Your task to perform on an android device: Clear all items from cart on newegg. Add "macbook pro 13 inch" to the cart on newegg Image 0: 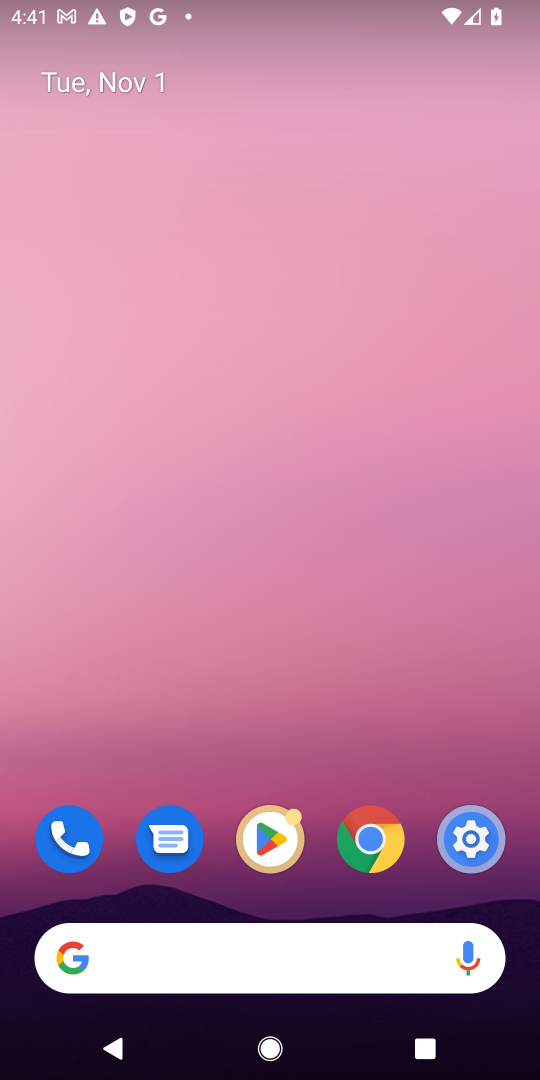
Step 0: drag from (302, 661) to (261, 4)
Your task to perform on an android device: Clear all items from cart on newegg. Add "macbook pro 13 inch" to the cart on newegg Image 1: 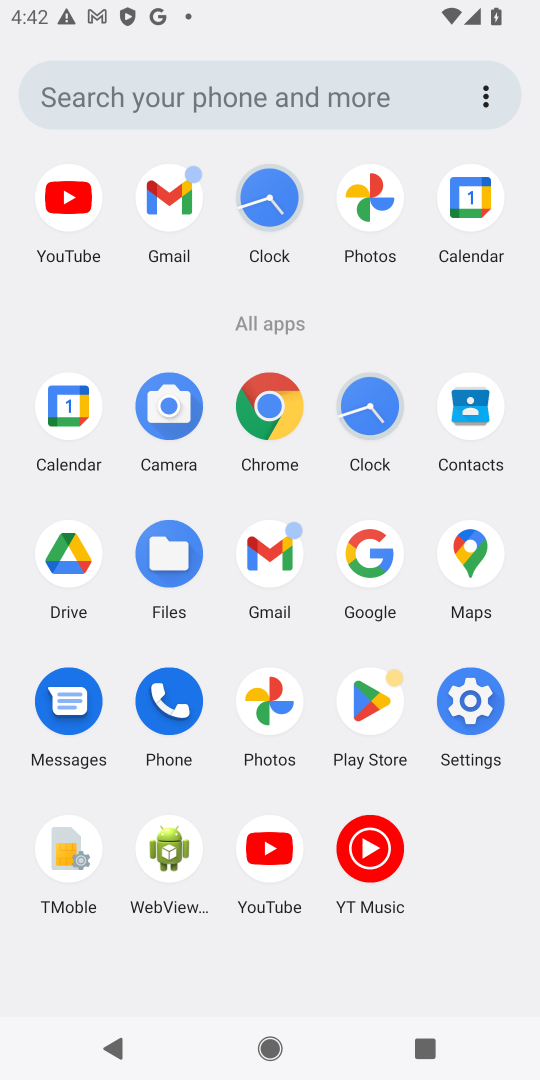
Step 1: click (275, 397)
Your task to perform on an android device: Clear all items from cart on newegg. Add "macbook pro 13 inch" to the cart on newegg Image 2: 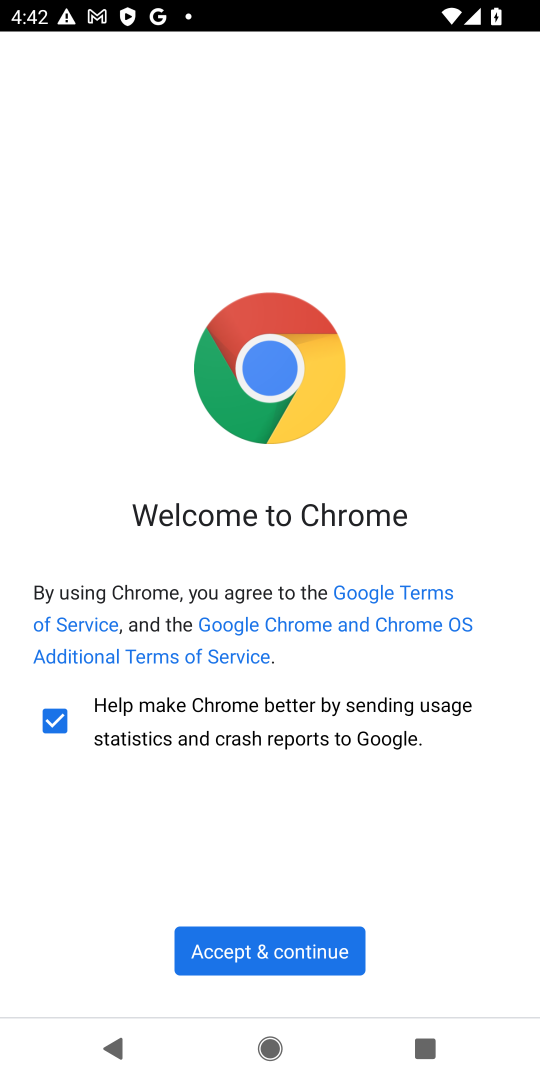
Step 2: click (310, 946)
Your task to perform on an android device: Clear all items from cart on newegg. Add "macbook pro 13 inch" to the cart on newegg Image 3: 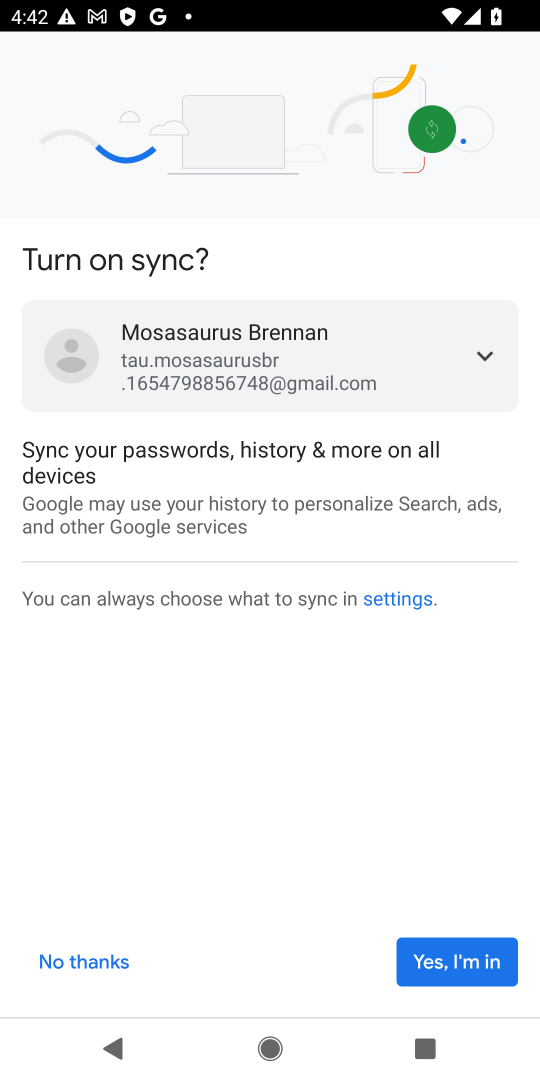
Step 3: click (472, 979)
Your task to perform on an android device: Clear all items from cart on newegg. Add "macbook pro 13 inch" to the cart on newegg Image 4: 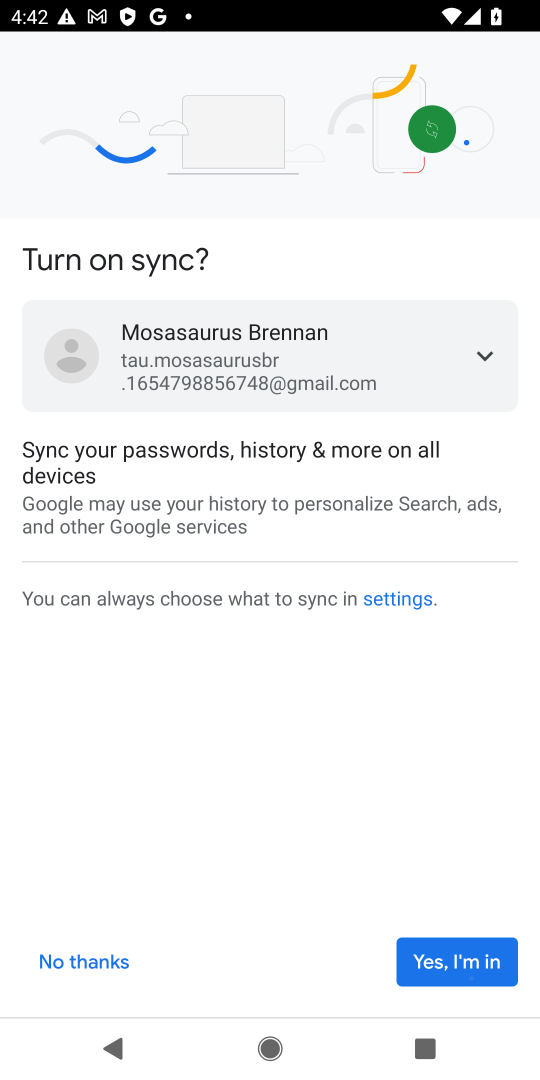
Step 4: click (477, 969)
Your task to perform on an android device: Clear all items from cart on newegg. Add "macbook pro 13 inch" to the cart on newegg Image 5: 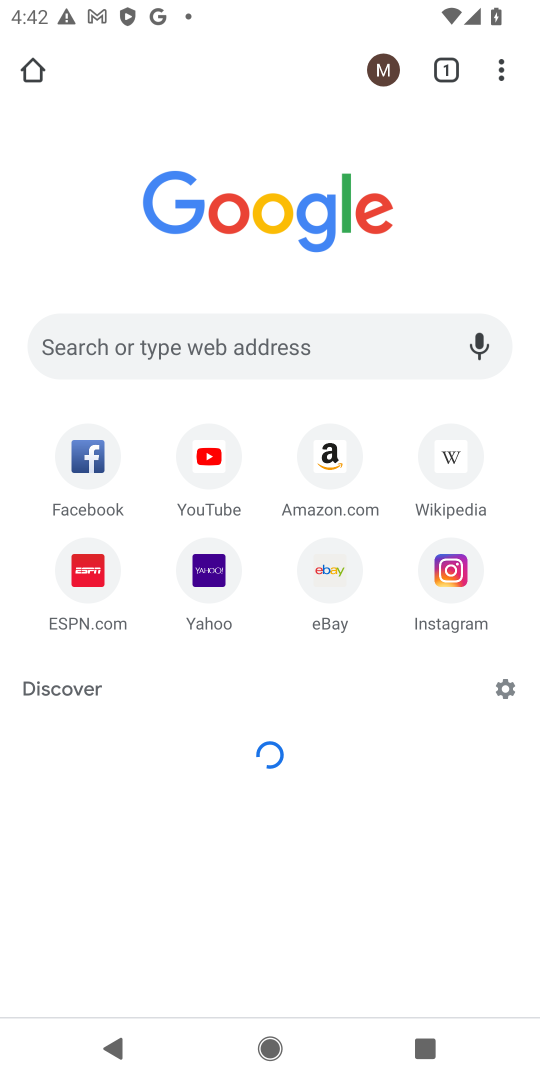
Step 5: click (313, 340)
Your task to perform on an android device: Clear all items from cart on newegg. Add "macbook pro 13 inch" to the cart on newegg Image 6: 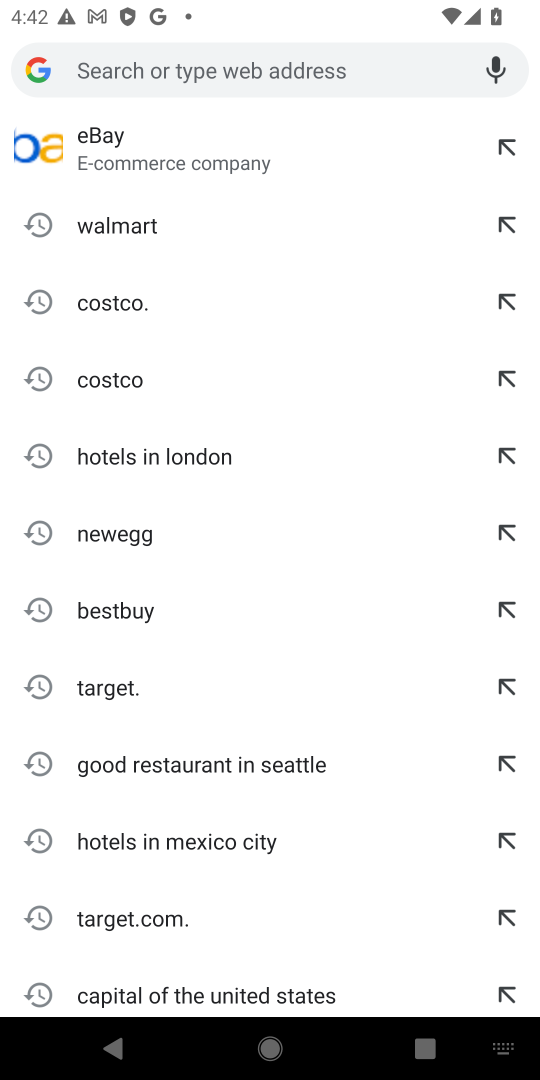
Step 6: type " ds\newegg.com"
Your task to perform on an android device: Clear all items from cart on newegg. Add "macbook pro 13 inch" to the cart on newegg Image 7: 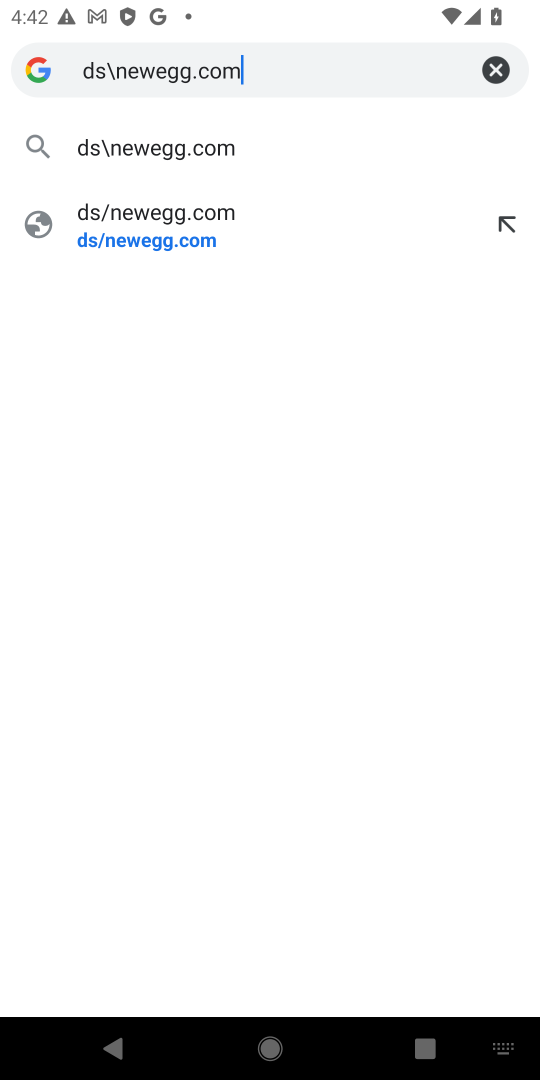
Step 7: click (498, 66)
Your task to perform on an android device: Clear all items from cart on newegg. Add "macbook pro 13 inch" to the cart on newegg Image 8: 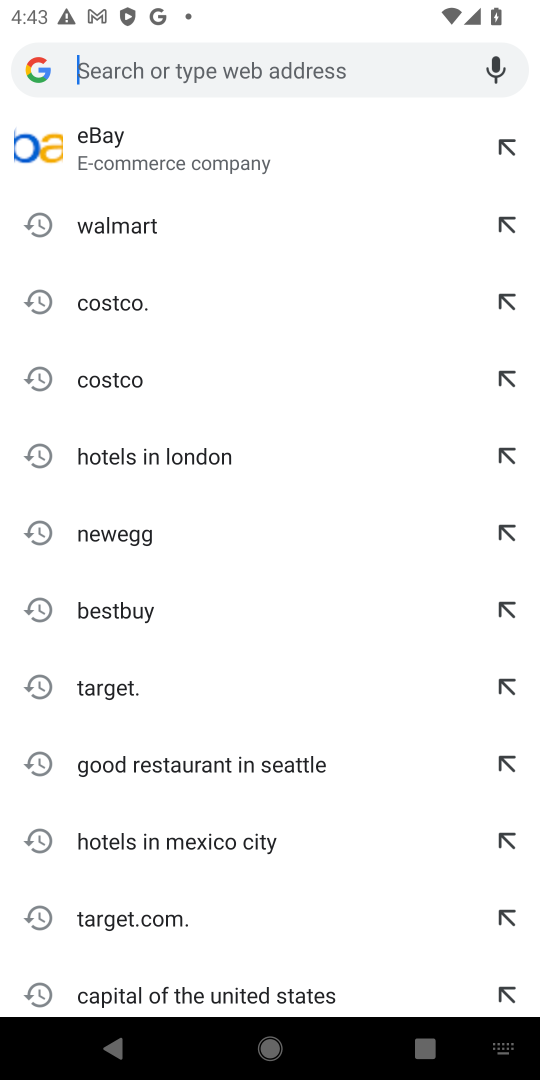
Step 8: type "newegg.com"
Your task to perform on an android device: Clear all items from cart on newegg. Add "macbook pro 13 inch" to the cart on newegg Image 9: 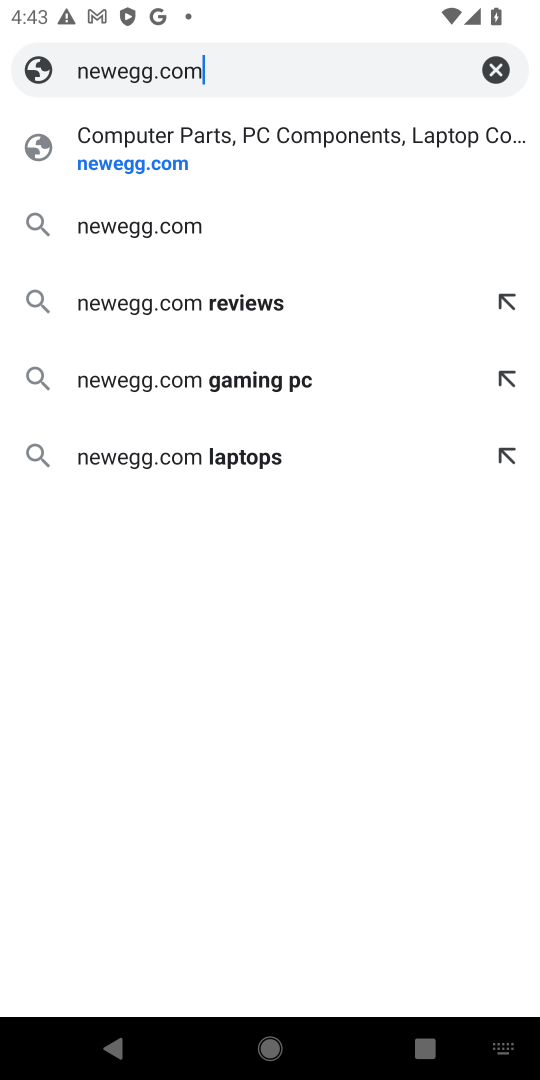
Step 9: press enter
Your task to perform on an android device: Clear all items from cart on newegg. Add "macbook pro 13 inch" to the cart on newegg Image 10: 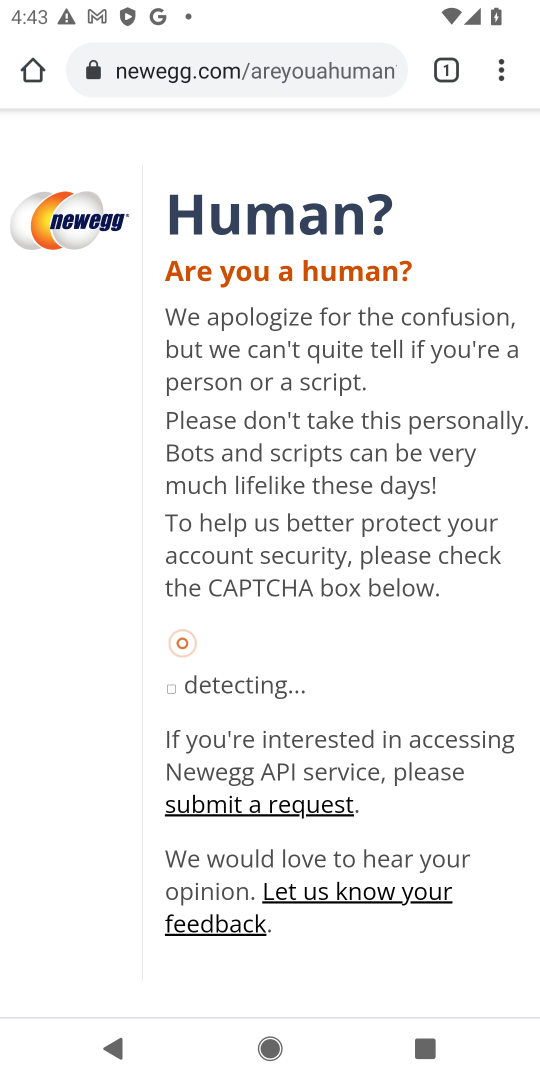
Step 10: drag from (314, 709) to (300, 0)
Your task to perform on an android device: Clear all items from cart on newegg. Add "macbook pro 13 inch" to the cart on newegg Image 11: 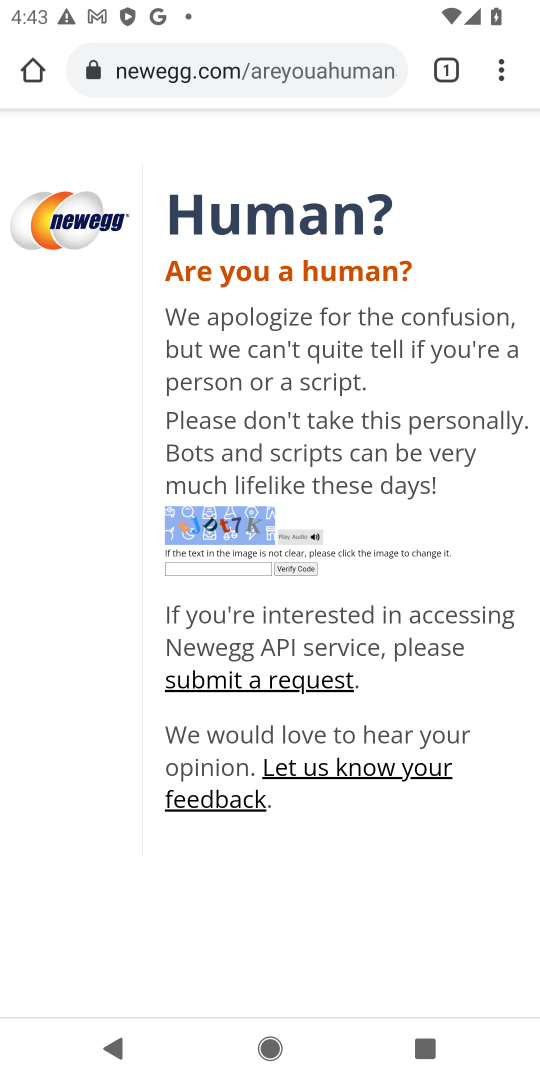
Step 11: click (208, 569)
Your task to perform on an android device: Clear all items from cart on newegg. Add "macbook pro 13 inch" to the cart on newegg Image 12: 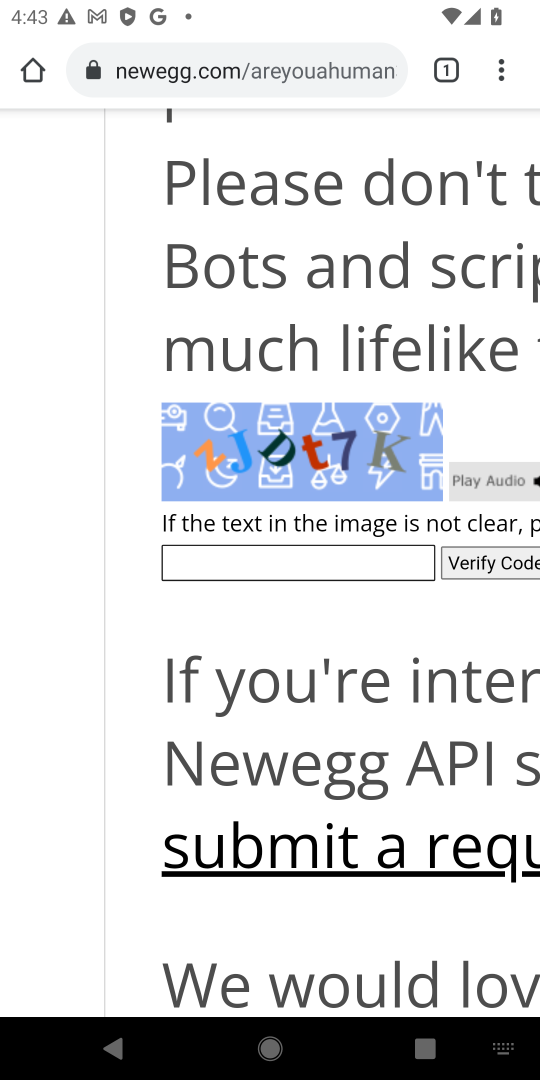
Step 12: type "zJDt7K"
Your task to perform on an android device: Clear all items from cart on newegg. Add "macbook pro 13 inch" to the cart on newegg Image 13: 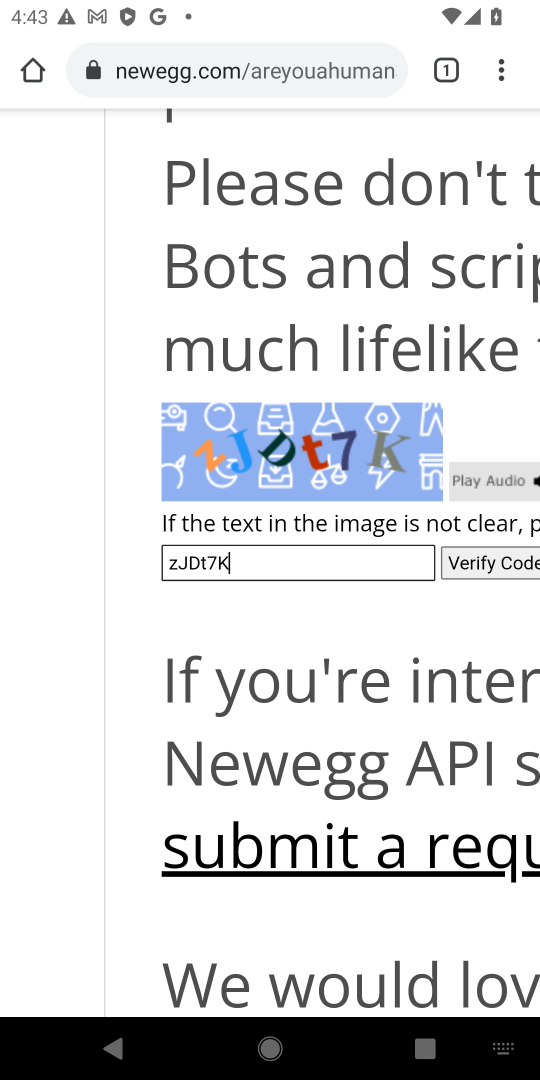
Step 13: type ""
Your task to perform on an android device: Clear all items from cart on newegg. Add "macbook pro 13 inch" to the cart on newegg Image 14: 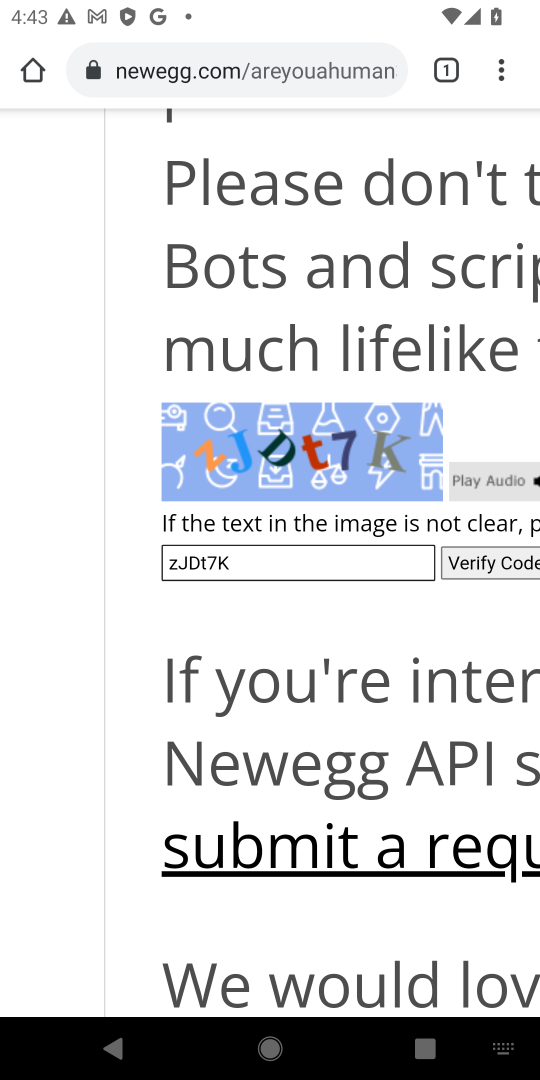
Step 14: click (518, 561)
Your task to perform on an android device: Clear all items from cart on newegg. Add "macbook pro 13 inch" to the cart on newegg Image 15: 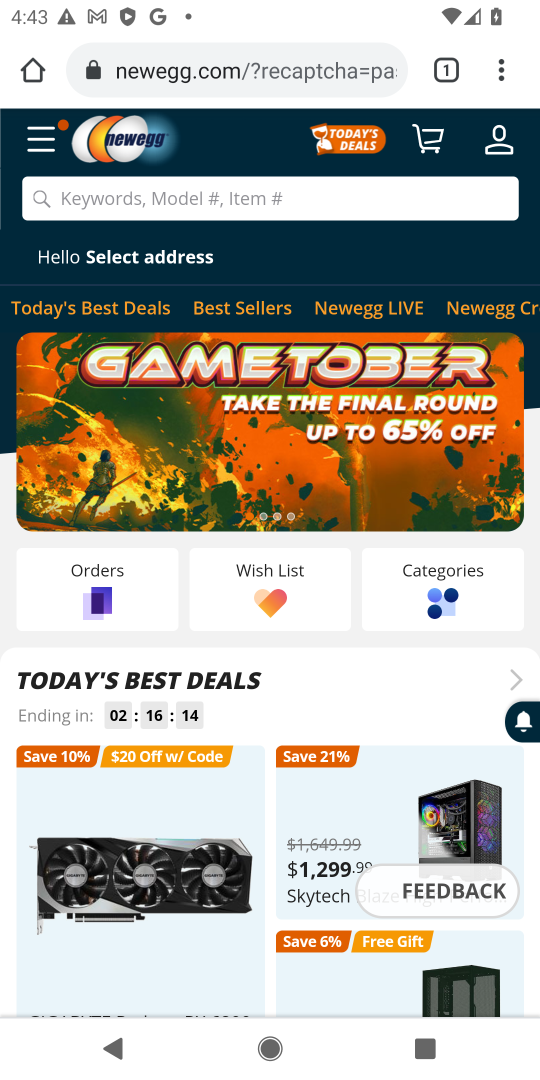
Step 15: click (338, 194)
Your task to perform on an android device: Clear all items from cart on newegg. Add "macbook pro 13 inch" to the cart on newegg Image 16: 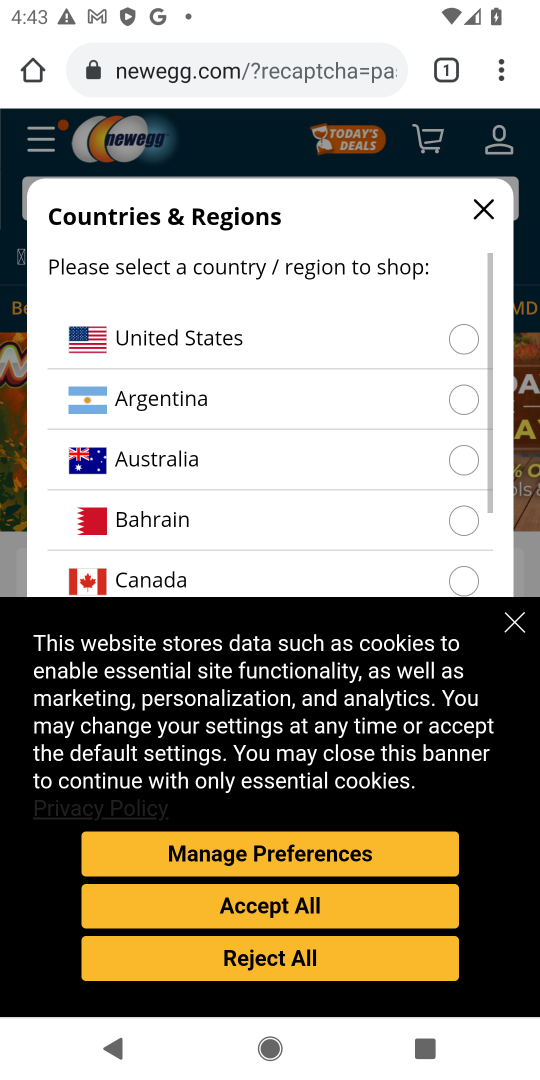
Step 16: click (431, 140)
Your task to perform on an android device: Clear all items from cart on newegg. Add "macbook pro 13 inch" to the cart on newegg Image 17: 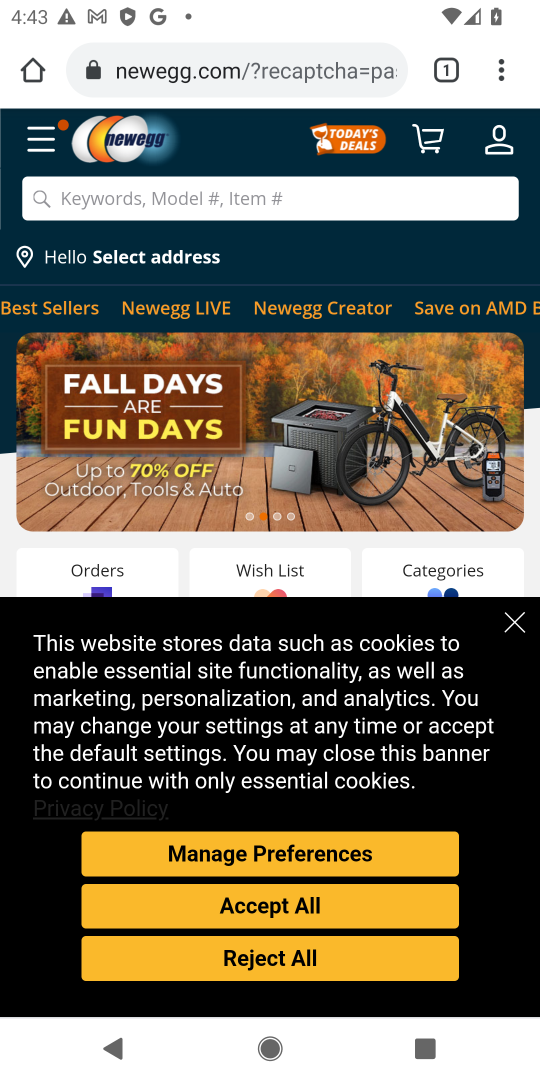
Step 17: click (431, 140)
Your task to perform on an android device: Clear all items from cart on newegg. Add "macbook pro 13 inch" to the cart on newegg Image 18: 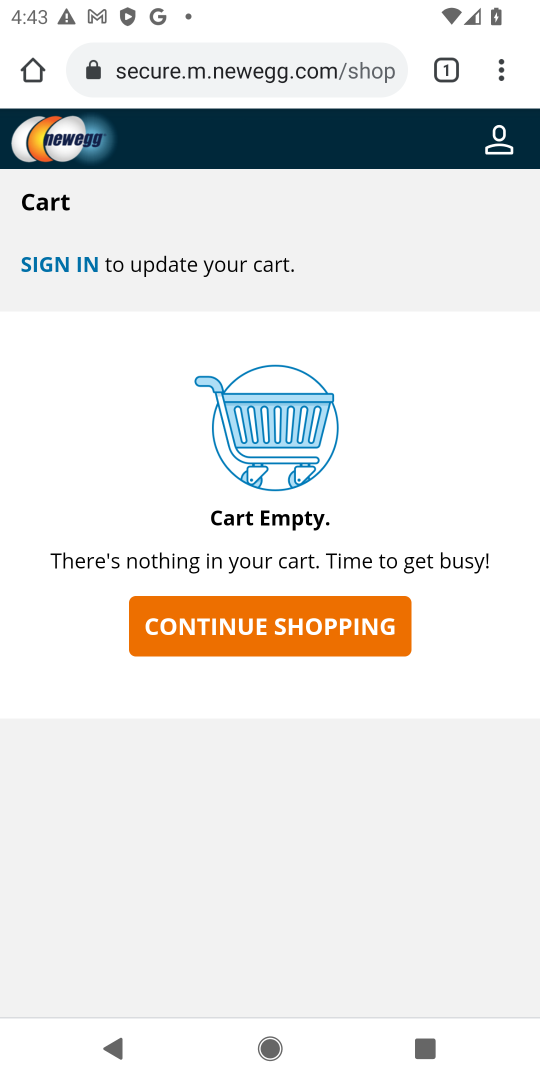
Step 18: click (249, 635)
Your task to perform on an android device: Clear all items from cart on newegg. Add "macbook pro 13 inch" to the cart on newegg Image 19: 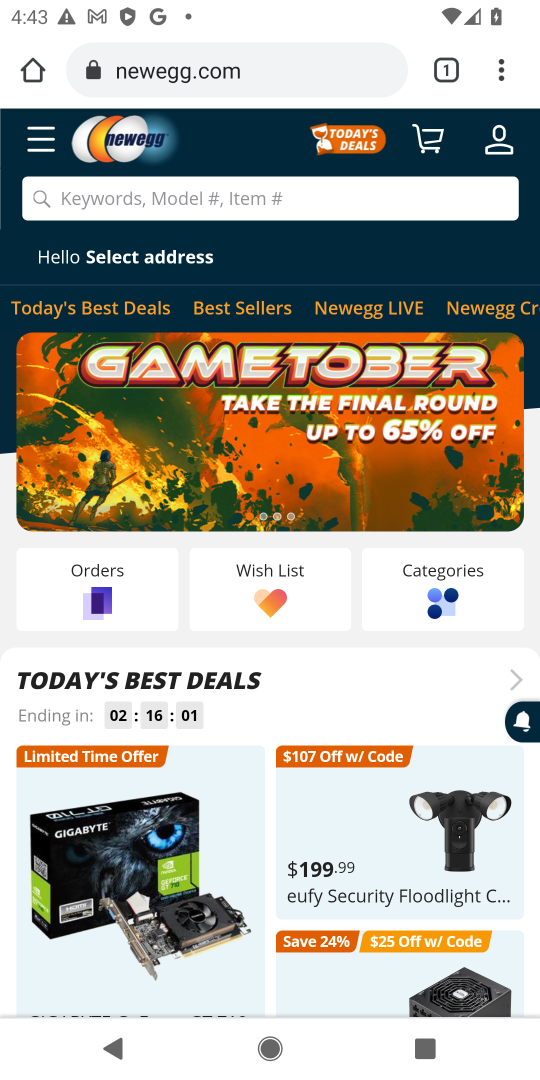
Step 19: click (322, 195)
Your task to perform on an android device: Clear all items from cart on newegg. Add "macbook pro 13 inch" to the cart on newegg Image 20: 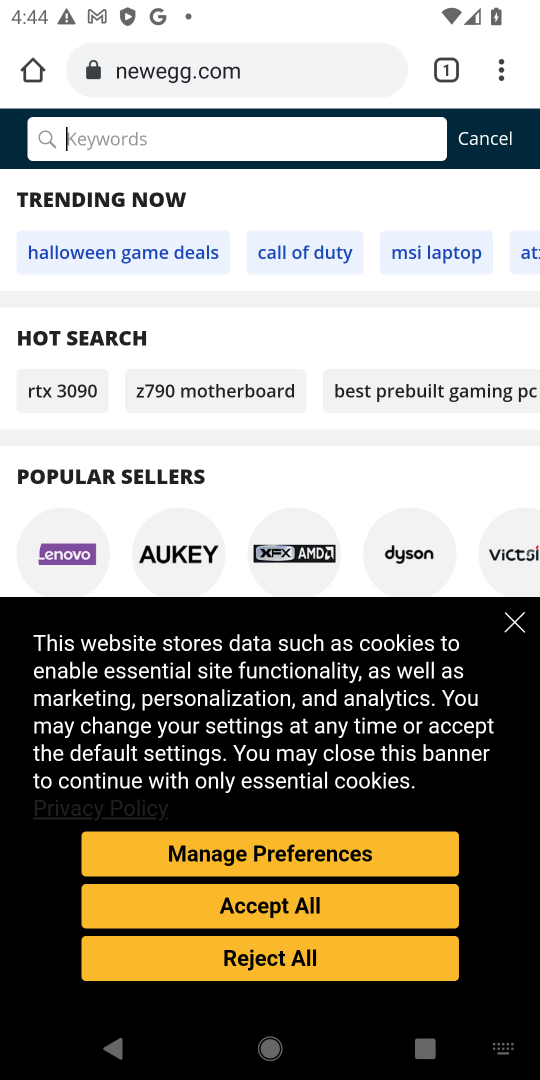
Step 20: type "macbook pro 13 inch"
Your task to perform on an android device: Clear all items from cart on newegg. Add "macbook pro 13 inch" to the cart on newegg Image 21: 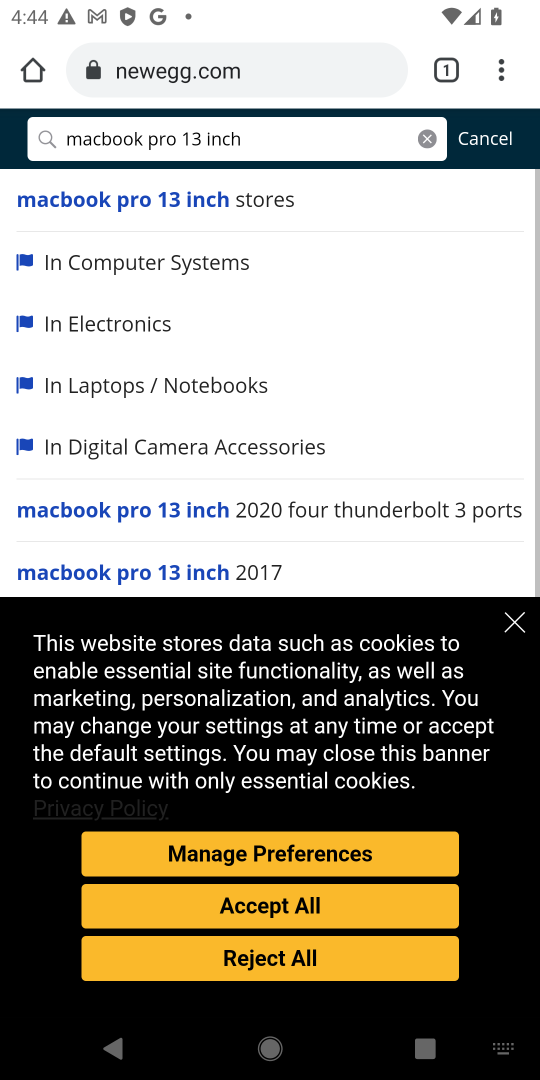
Step 21: press enter
Your task to perform on an android device: Clear all items from cart on newegg. Add "macbook pro 13 inch" to the cart on newegg Image 22: 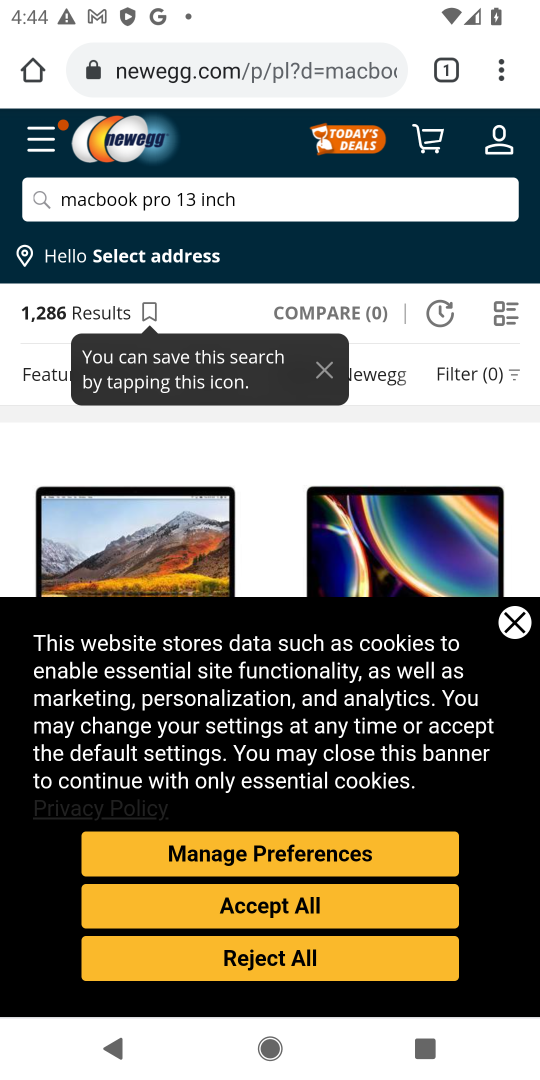
Step 22: drag from (126, 778) to (165, 544)
Your task to perform on an android device: Clear all items from cart on newegg. Add "macbook pro 13 inch" to the cart on newegg Image 23: 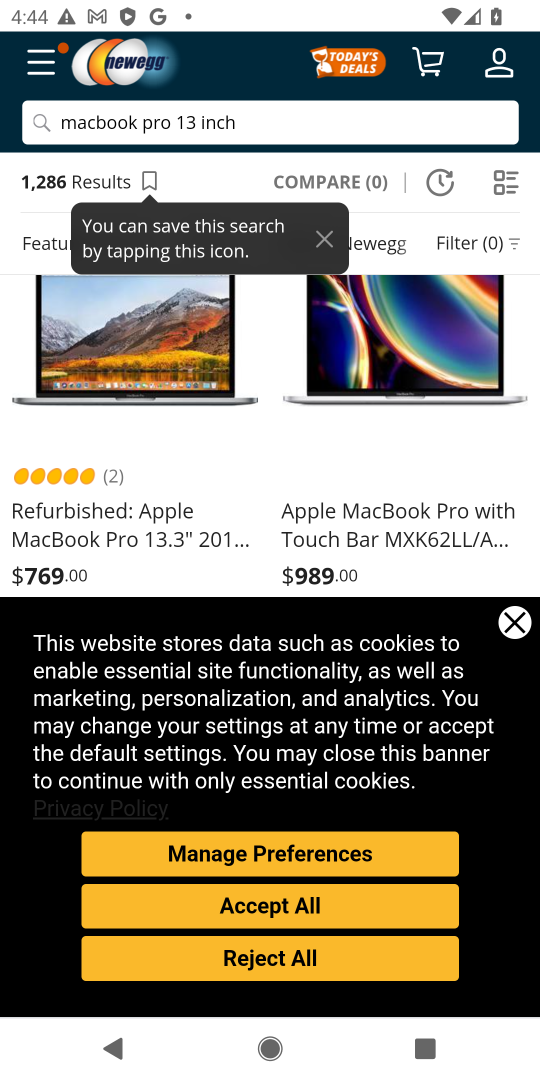
Step 23: click (518, 616)
Your task to perform on an android device: Clear all items from cart on newegg. Add "macbook pro 13 inch" to the cart on newegg Image 24: 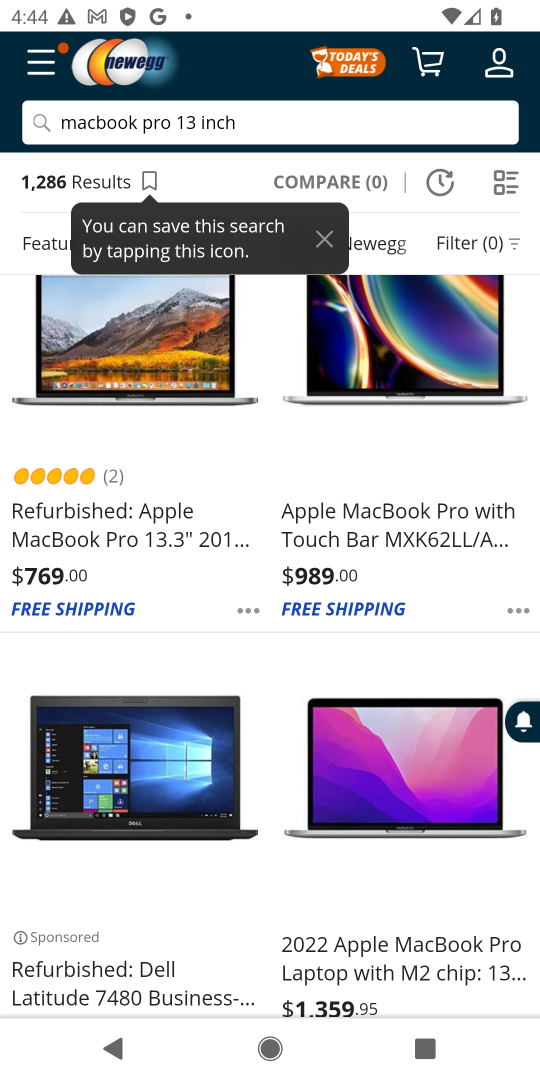
Step 24: drag from (406, 802) to (443, 350)
Your task to perform on an android device: Clear all items from cart on newegg. Add "macbook pro 13 inch" to the cart on newegg Image 25: 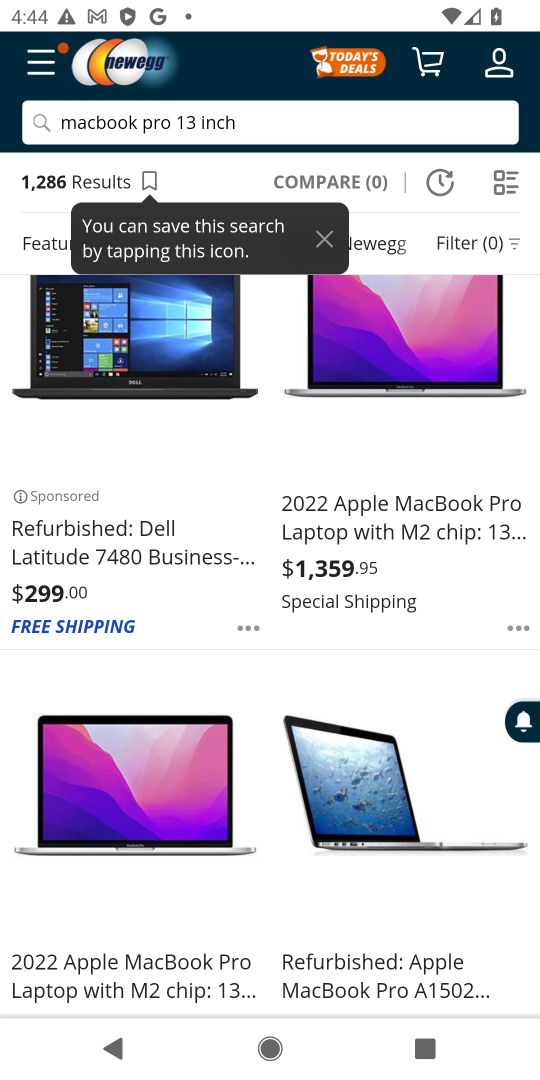
Step 25: click (428, 526)
Your task to perform on an android device: Clear all items from cart on newegg. Add "macbook pro 13 inch" to the cart on newegg Image 26: 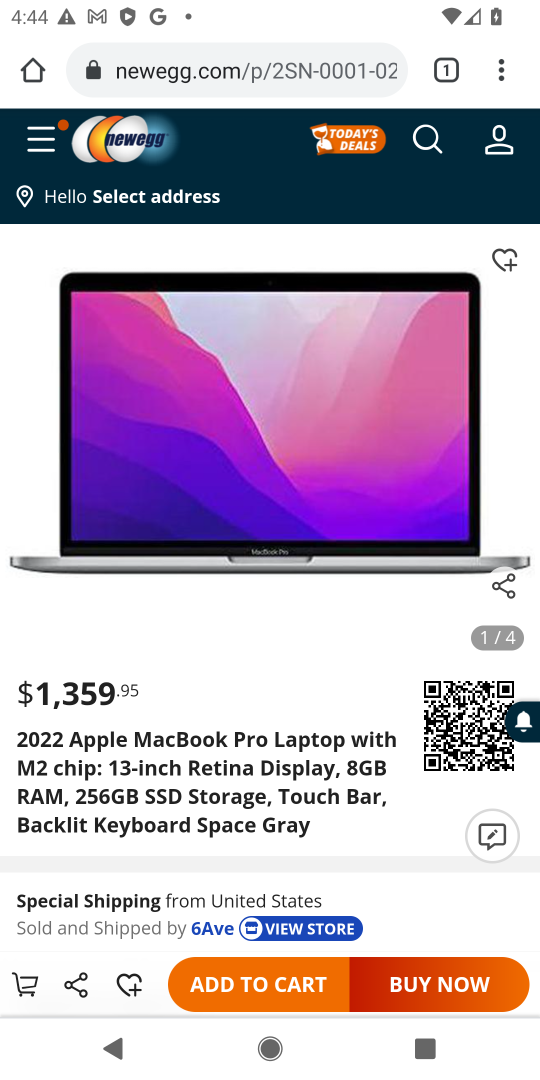
Step 26: click (277, 987)
Your task to perform on an android device: Clear all items from cart on newegg. Add "macbook pro 13 inch" to the cart on newegg Image 27: 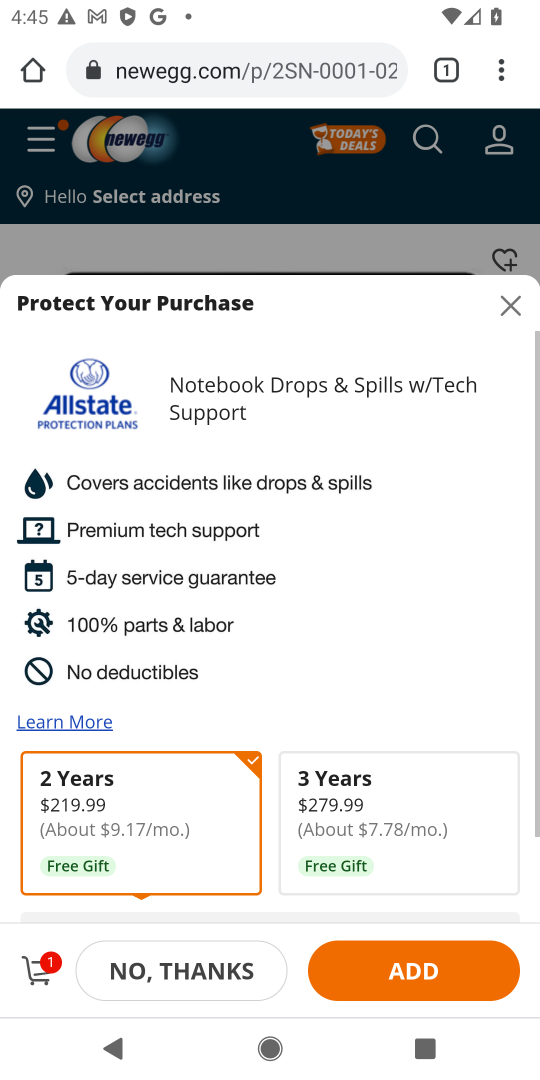
Step 27: task complete